Your task to perform on an android device: change the clock display to digital Image 0: 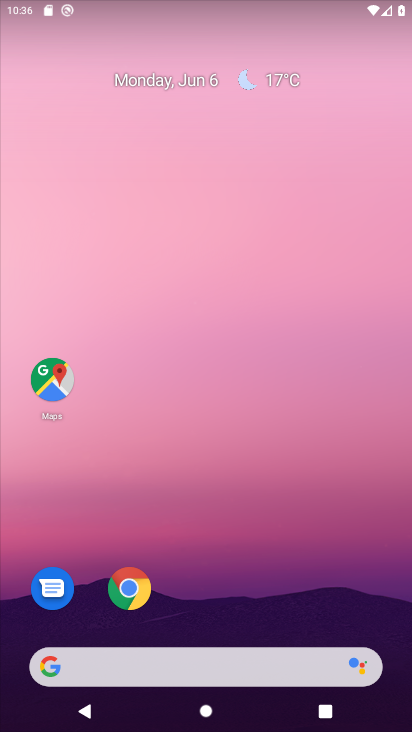
Step 0: drag from (238, 628) to (332, 107)
Your task to perform on an android device: change the clock display to digital Image 1: 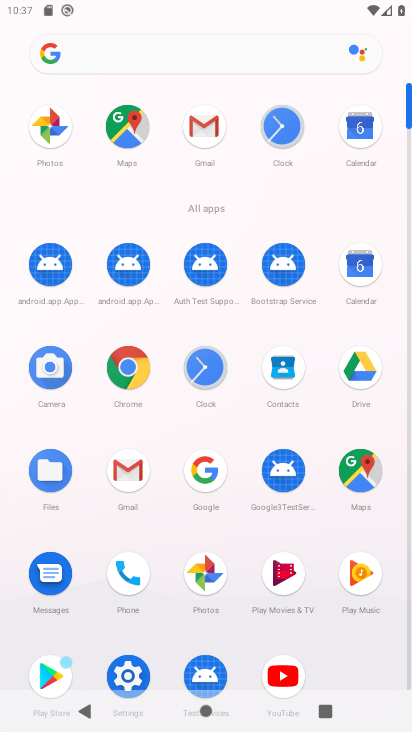
Step 1: click (217, 383)
Your task to perform on an android device: change the clock display to digital Image 2: 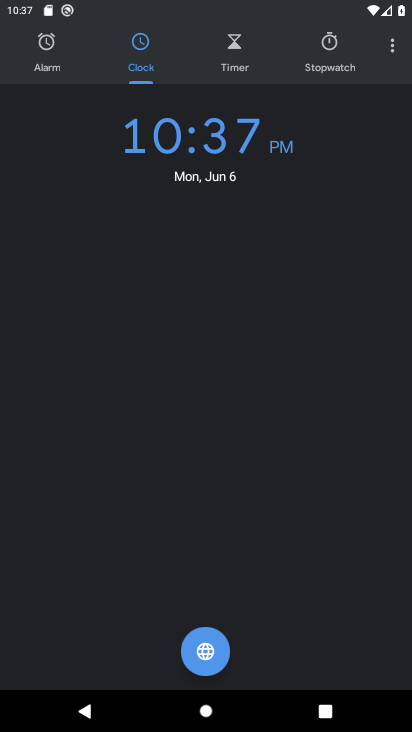
Step 2: click (388, 35)
Your task to perform on an android device: change the clock display to digital Image 3: 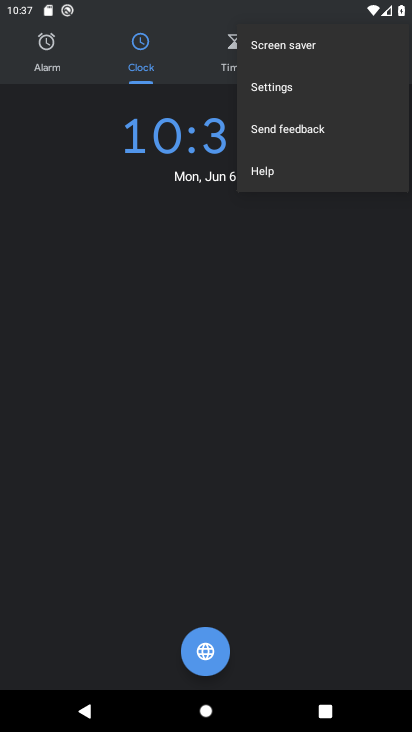
Step 3: click (350, 86)
Your task to perform on an android device: change the clock display to digital Image 4: 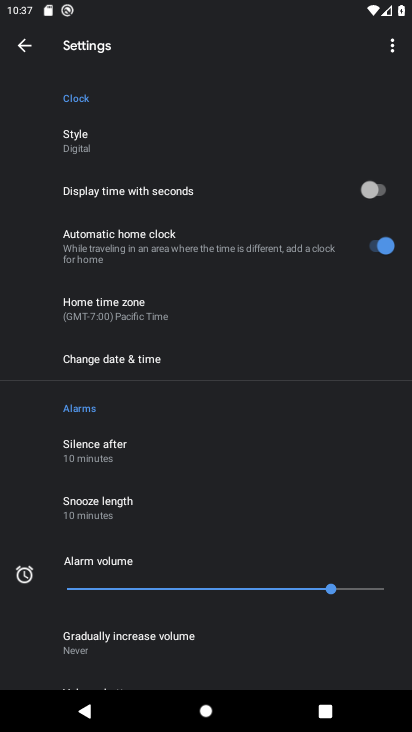
Step 4: click (326, 89)
Your task to perform on an android device: change the clock display to digital Image 5: 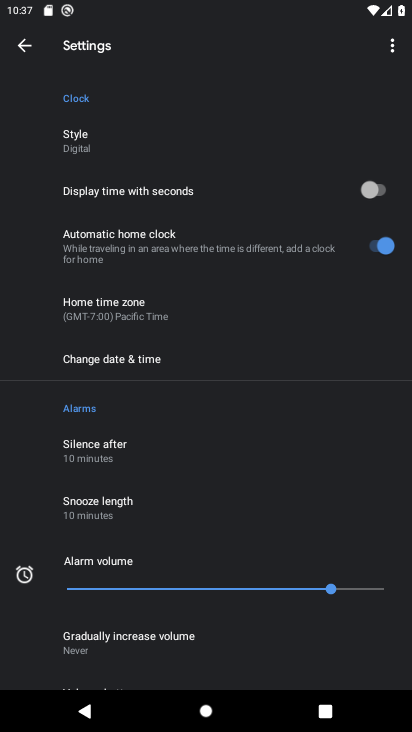
Step 5: task complete